Your task to perform on an android device: Open calendar and show me the fourth week of next month Image 0: 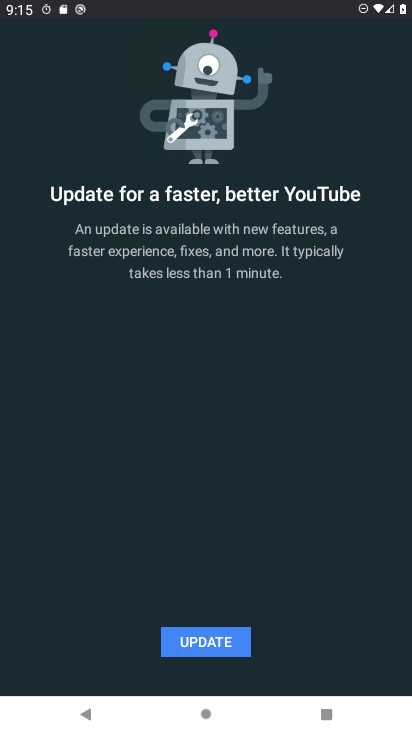
Step 0: drag from (331, 701) to (298, 236)
Your task to perform on an android device: Open calendar and show me the fourth week of next month Image 1: 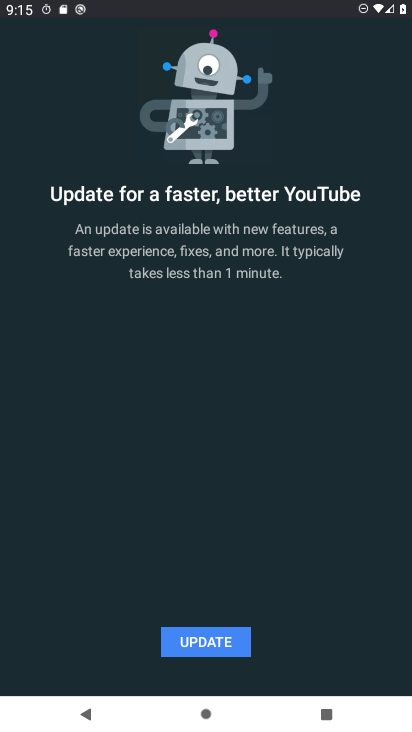
Step 1: drag from (279, 640) to (239, 266)
Your task to perform on an android device: Open calendar and show me the fourth week of next month Image 2: 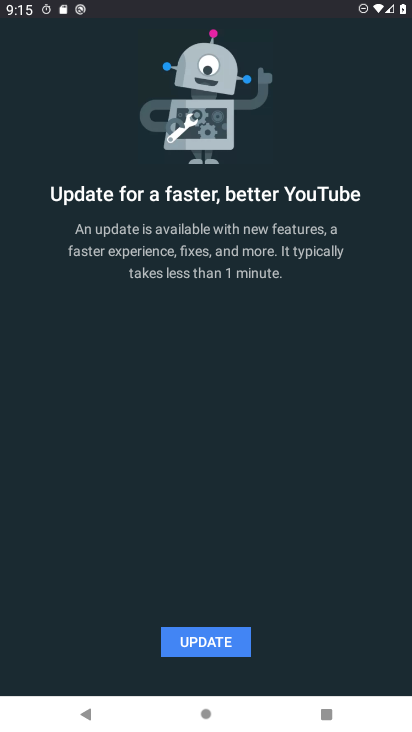
Step 2: press back button
Your task to perform on an android device: Open calendar and show me the fourth week of next month Image 3: 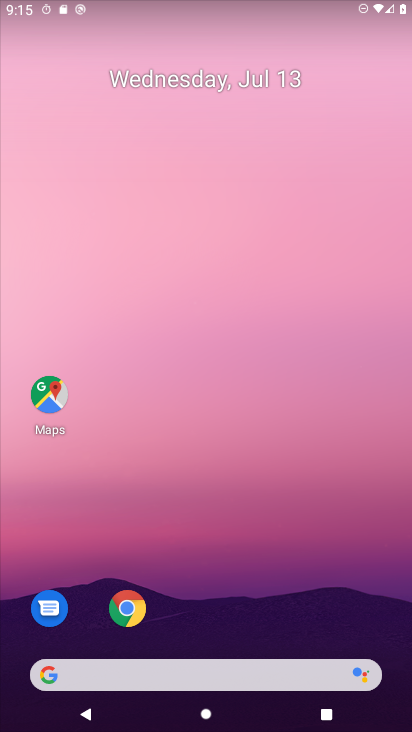
Step 3: drag from (277, 588) to (226, 240)
Your task to perform on an android device: Open calendar and show me the fourth week of next month Image 4: 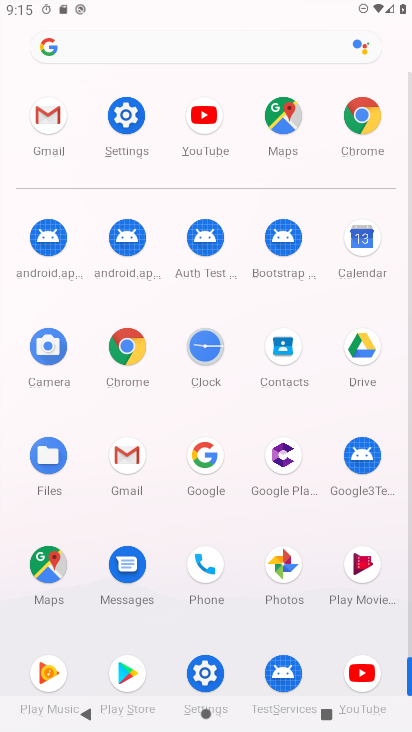
Step 4: click (360, 244)
Your task to perform on an android device: Open calendar and show me the fourth week of next month Image 5: 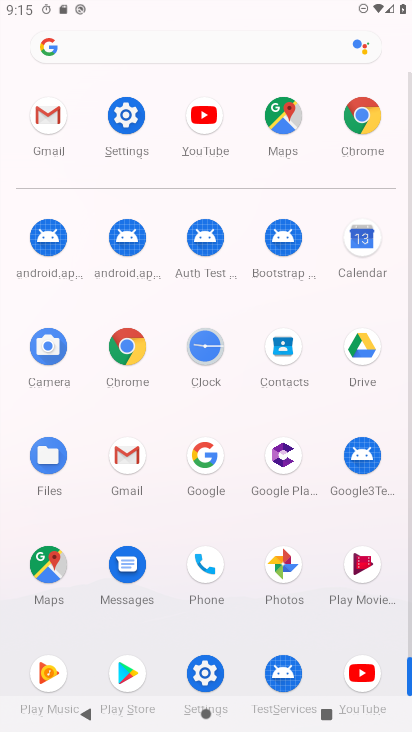
Step 5: click (374, 237)
Your task to perform on an android device: Open calendar and show me the fourth week of next month Image 6: 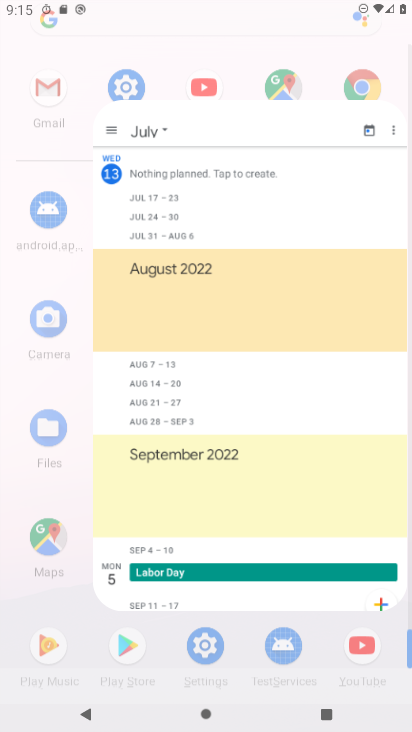
Step 6: click (375, 236)
Your task to perform on an android device: Open calendar and show me the fourth week of next month Image 7: 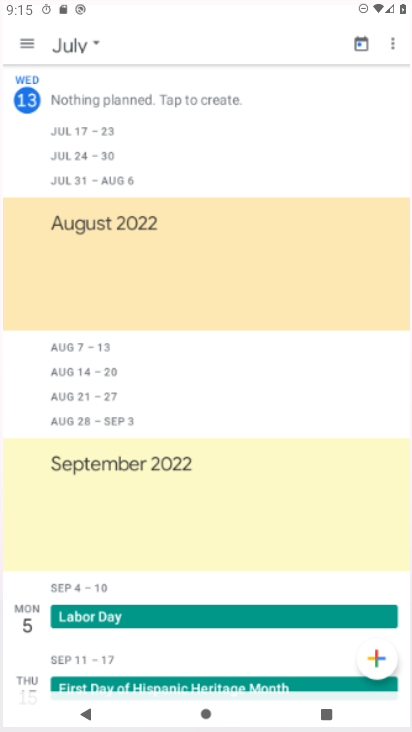
Step 7: click (375, 236)
Your task to perform on an android device: Open calendar and show me the fourth week of next month Image 8: 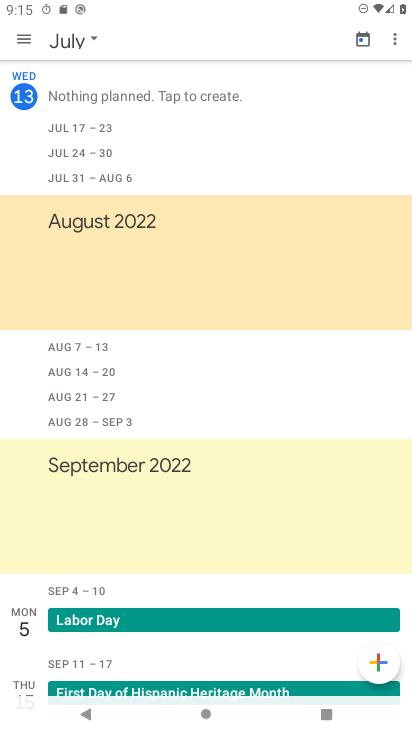
Step 8: click (96, 25)
Your task to perform on an android device: Open calendar and show me the fourth week of next month Image 9: 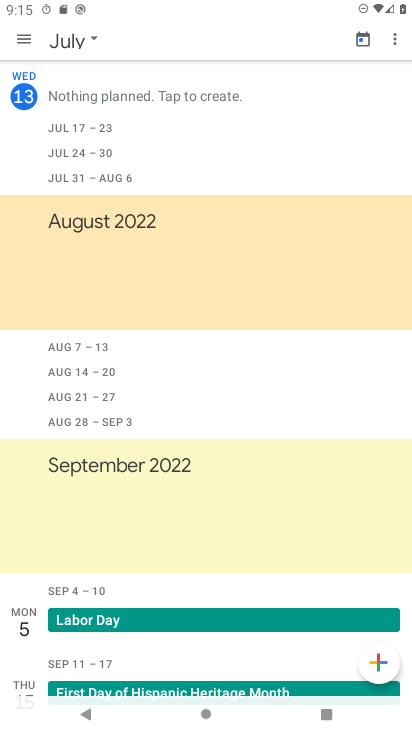
Step 9: click (100, 38)
Your task to perform on an android device: Open calendar and show me the fourth week of next month Image 10: 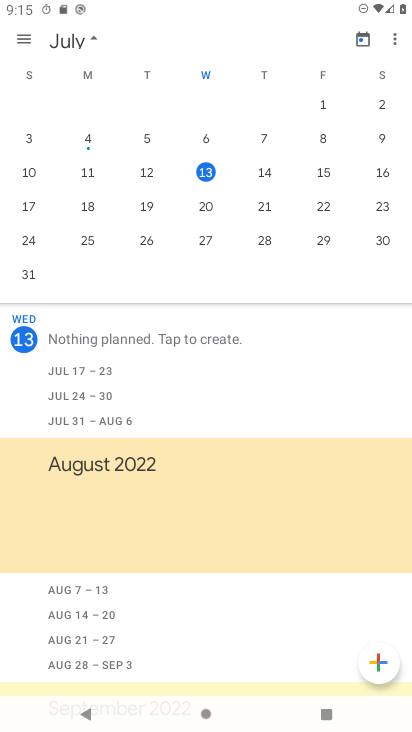
Step 10: drag from (317, 180) to (21, 239)
Your task to perform on an android device: Open calendar and show me the fourth week of next month Image 11: 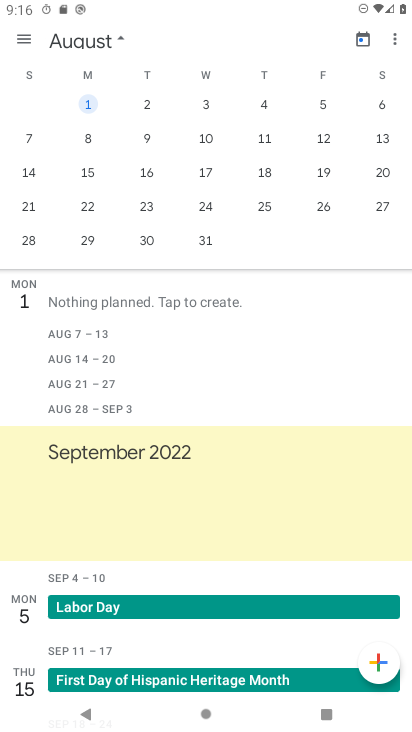
Step 11: click (142, 204)
Your task to perform on an android device: Open calendar and show me the fourth week of next month Image 12: 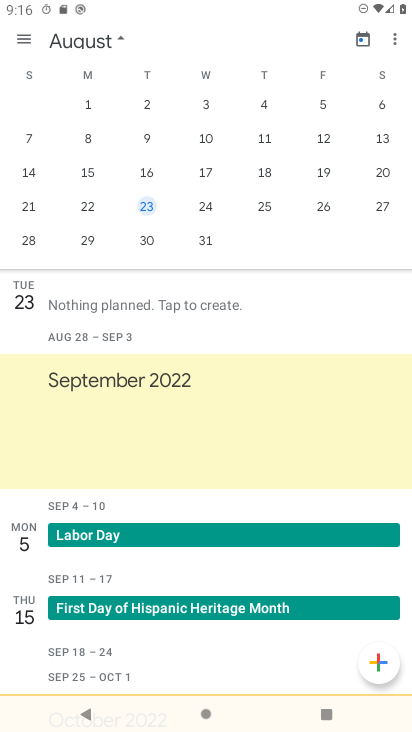
Step 12: click (141, 203)
Your task to perform on an android device: Open calendar and show me the fourth week of next month Image 13: 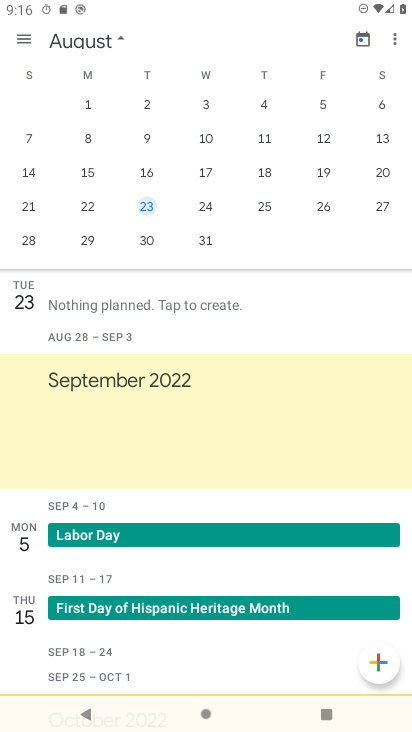
Step 13: click (140, 202)
Your task to perform on an android device: Open calendar and show me the fourth week of next month Image 14: 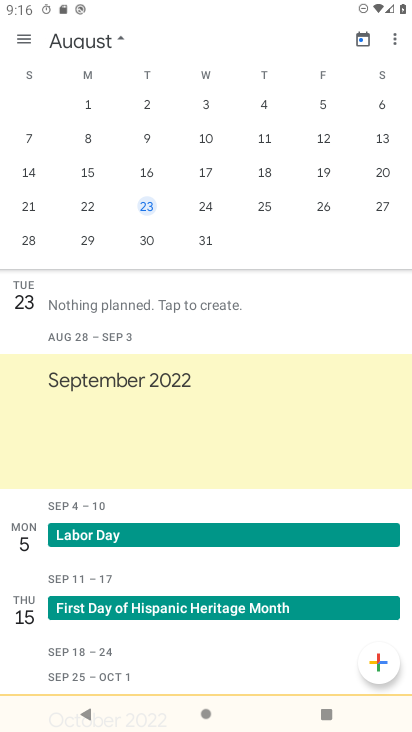
Step 14: click (140, 201)
Your task to perform on an android device: Open calendar and show me the fourth week of next month Image 15: 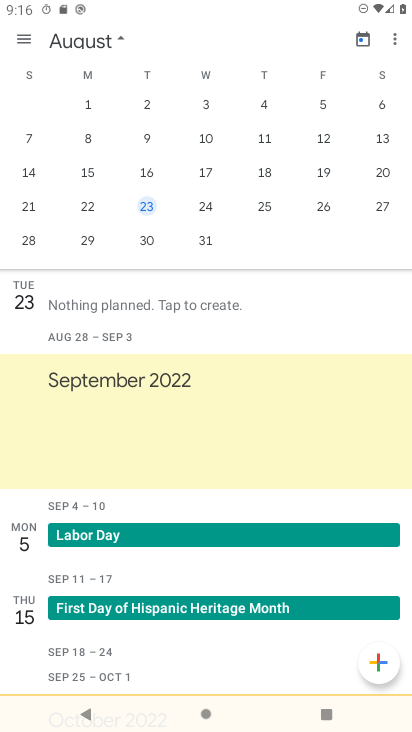
Step 15: task complete